Your task to perform on an android device: turn pop-ups off in chrome Image 0: 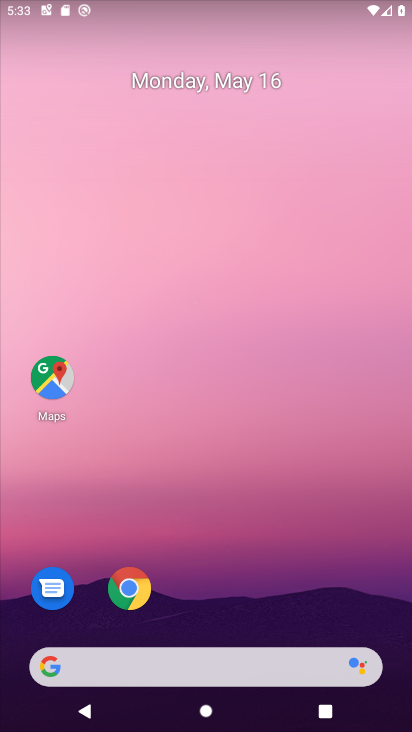
Step 0: click (143, 601)
Your task to perform on an android device: turn pop-ups off in chrome Image 1: 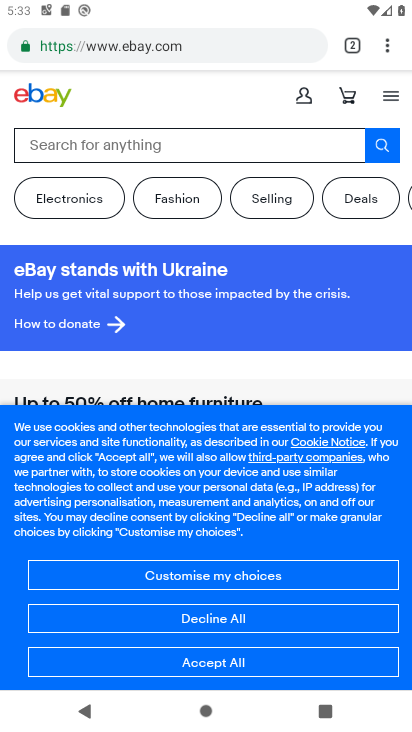
Step 1: click (388, 47)
Your task to perform on an android device: turn pop-ups off in chrome Image 2: 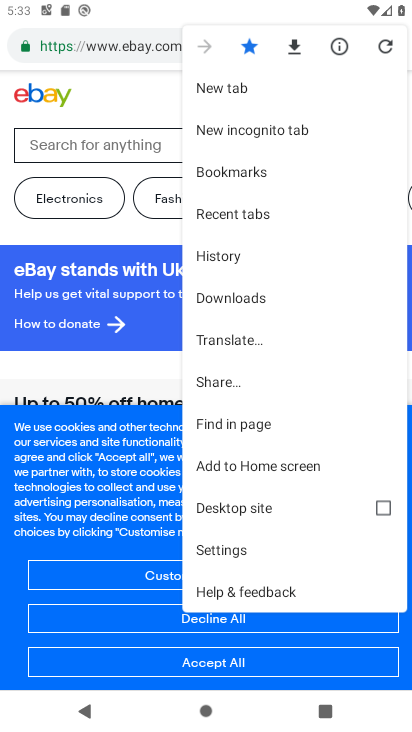
Step 2: click (234, 557)
Your task to perform on an android device: turn pop-ups off in chrome Image 3: 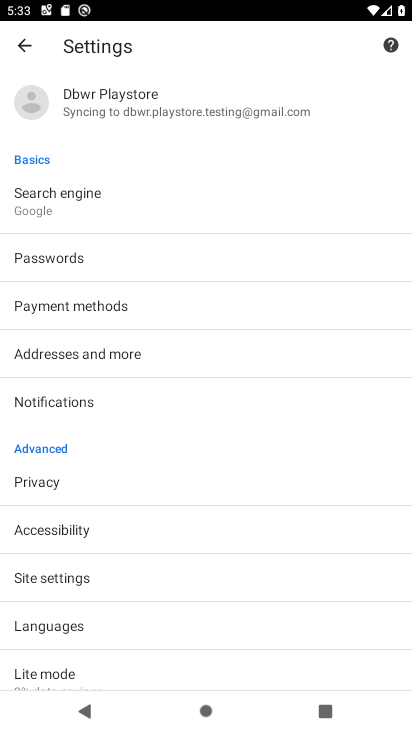
Step 3: click (136, 567)
Your task to perform on an android device: turn pop-ups off in chrome Image 4: 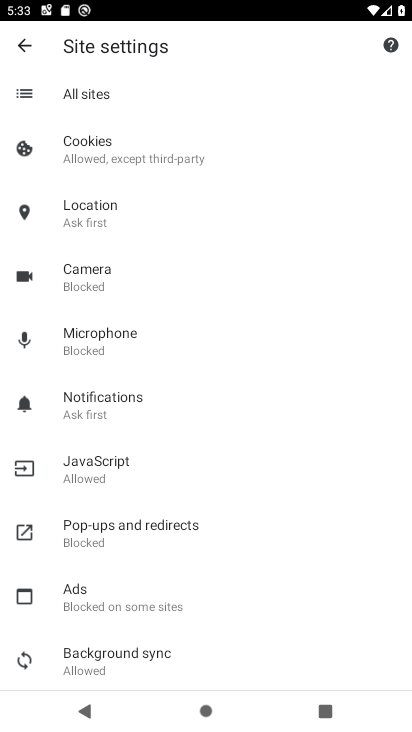
Step 4: click (172, 519)
Your task to perform on an android device: turn pop-ups off in chrome Image 5: 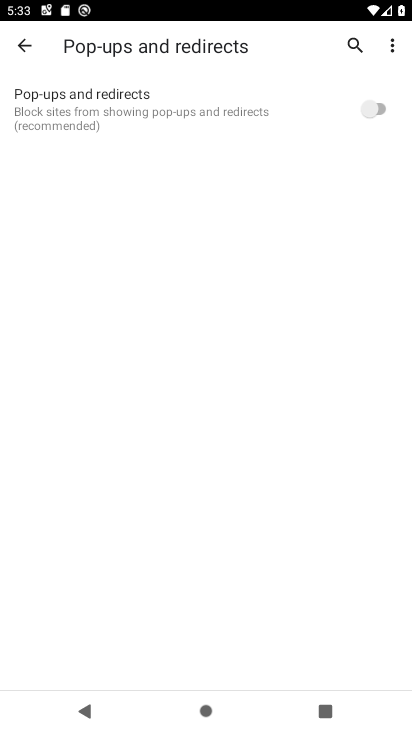
Step 5: task complete